Your task to perform on an android device: Open maps Image 0: 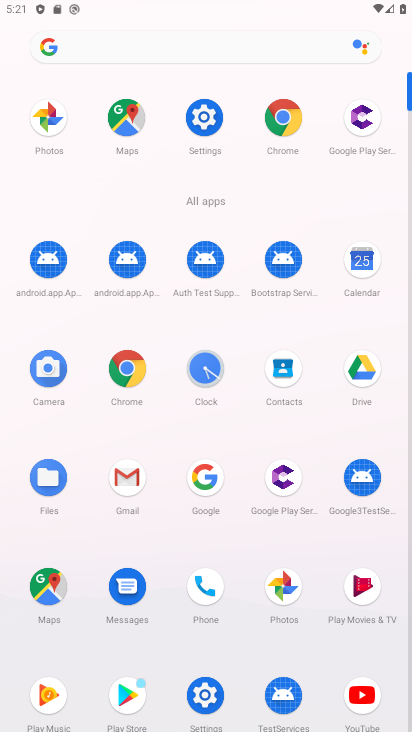
Step 0: press home button
Your task to perform on an android device: Open maps Image 1: 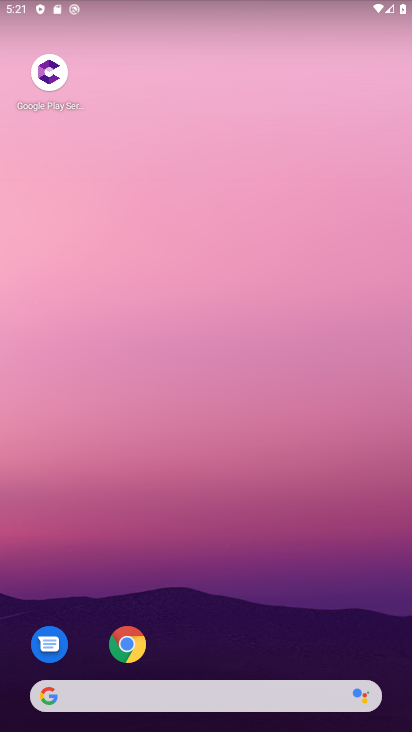
Step 1: drag from (321, 634) to (387, 49)
Your task to perform on an android device: Open maps Image 2: 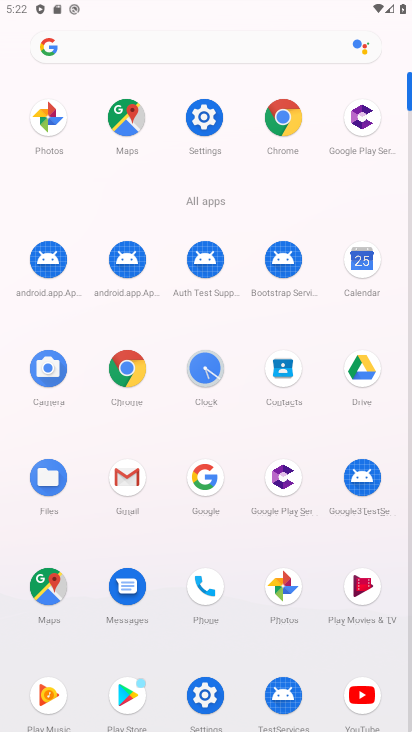
Step 2: click (45, 596)
Your task to perform on an android device: Open maps Image 3: 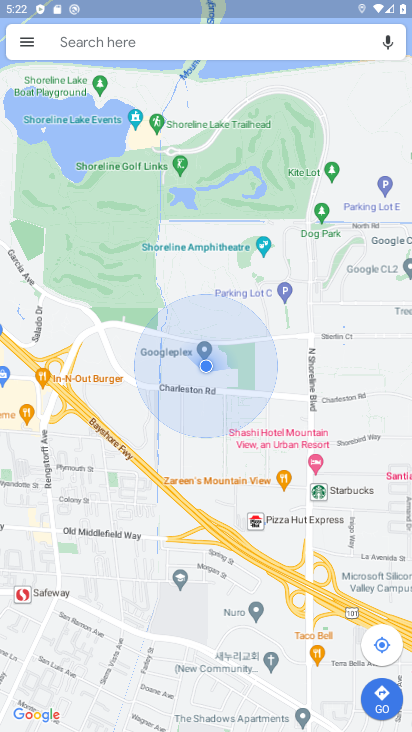
Step 3: task complete